Your task to perform on an android device: Do I have any events today? Image 0: 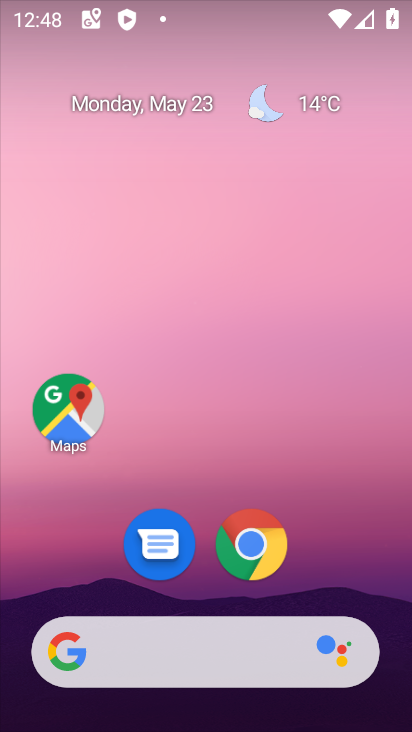
Step 0: drag from (334, 502) to (319, 467)
Your task to perform on an android device: Do I have any events today? Image 1: 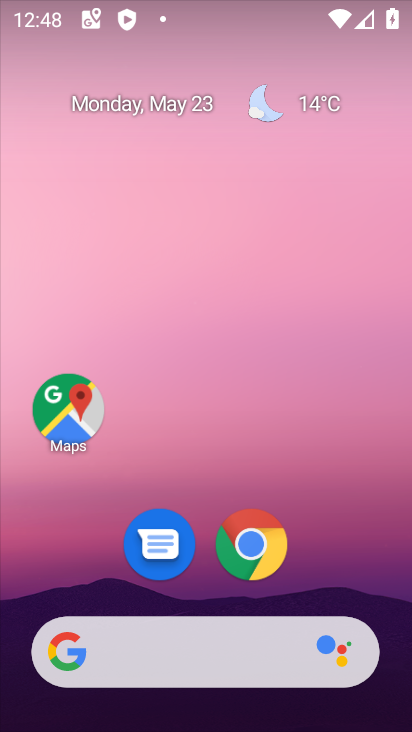
Step 1: drag from (314, 511) to (299, 73)
Your task to perform on an android device: Do I have any events today? Image 2: 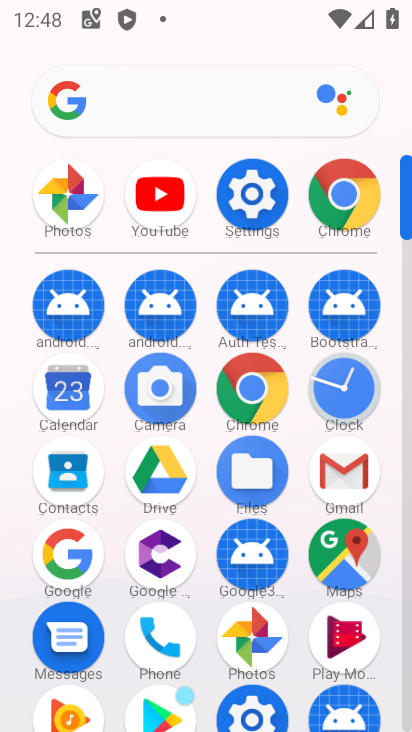
Step 2: click (73, 385)
Your task to perform on an android device: Do I have any events today? Image 3: 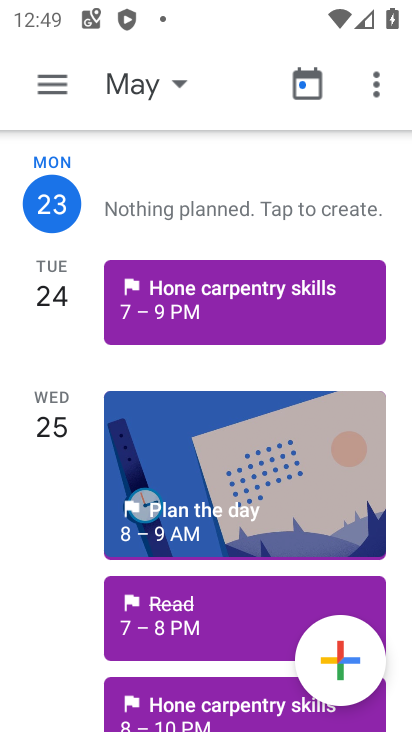
Step 3: task complete